Your task to perform on an android device: clear history in the chrome app Image 0: 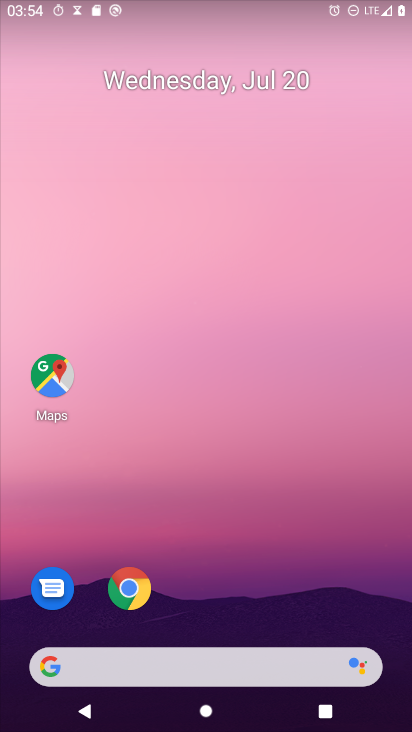
Step 0: click (112, 590)
Your task to perform on an android device: clear history in the chrome app Image 1: 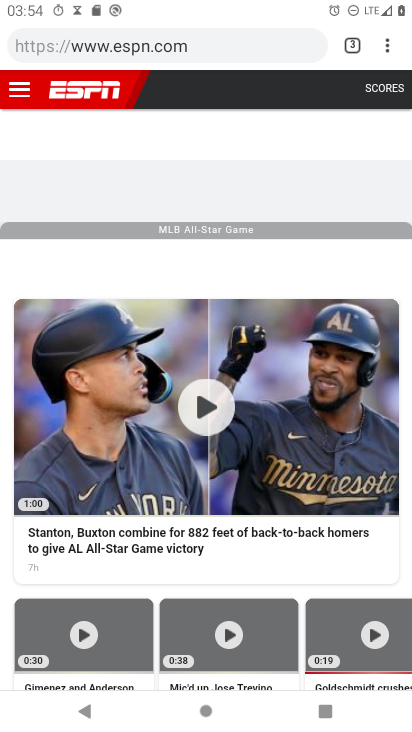
Step 1: click (383, 45)
Your task to perform on an android device: clear history in the chrome app Image 2: 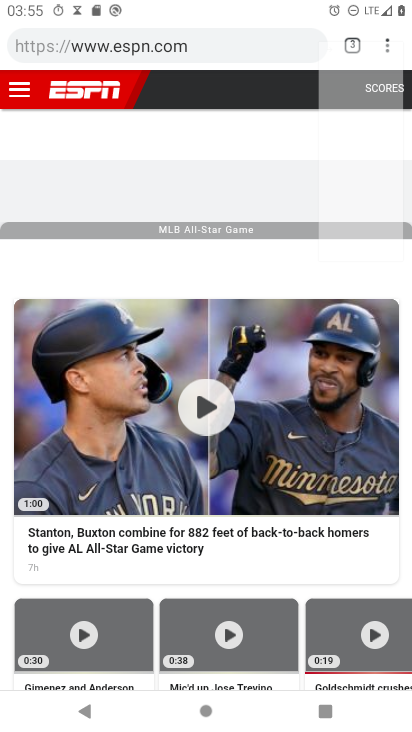
Step 2: click (383, 45)
Your task to perform on an android device: clear history in the chrome app Image 3: 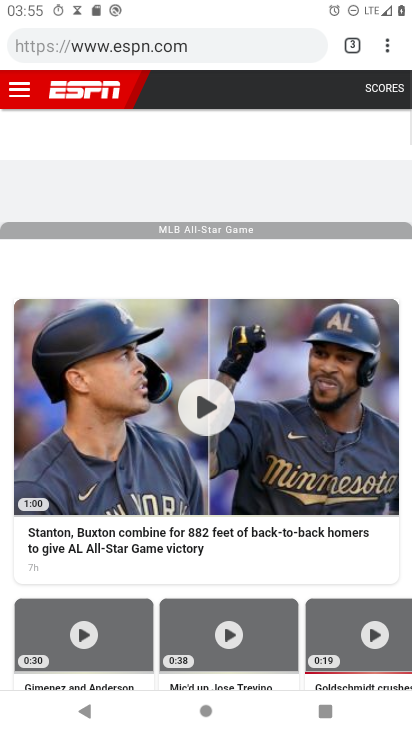
Step 3: click (387, 47)
Your task to perform on an android device: clear history in the chrome app Image 4: 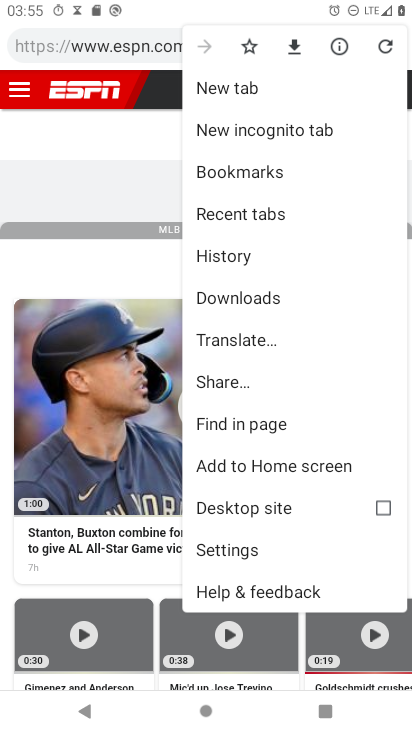
Step 4: click (243, 253)
Your task to perform on an android device: clear history in the chrome app Image 5: 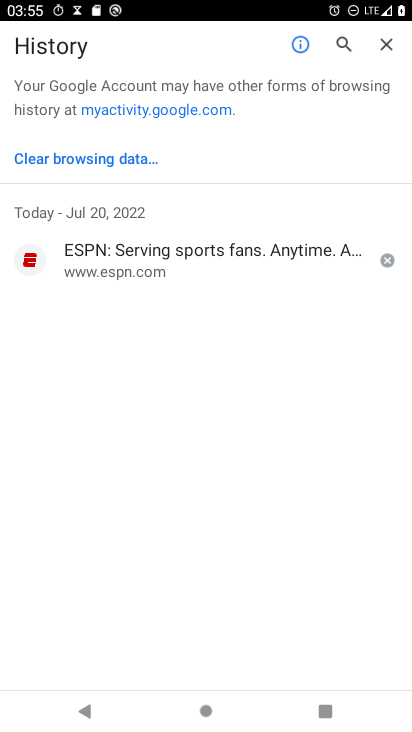
Step 5: click (90, 163)
Your task to perform on an android device: clear history in the chrome app Image 6: 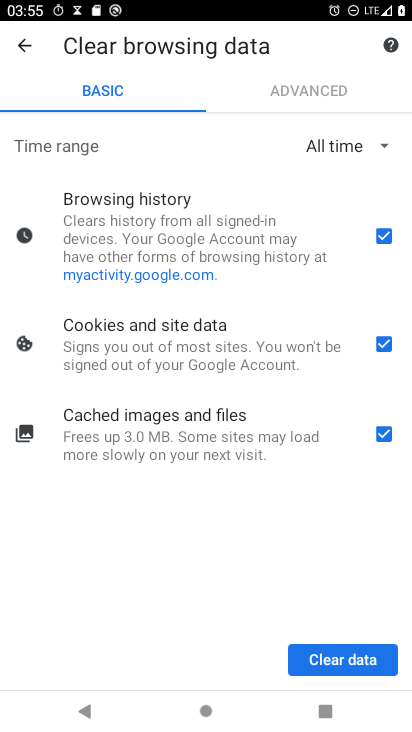
Step 6: click (364, 662)
Your task to perform on an android device: clear history in the chrome app Image 7: 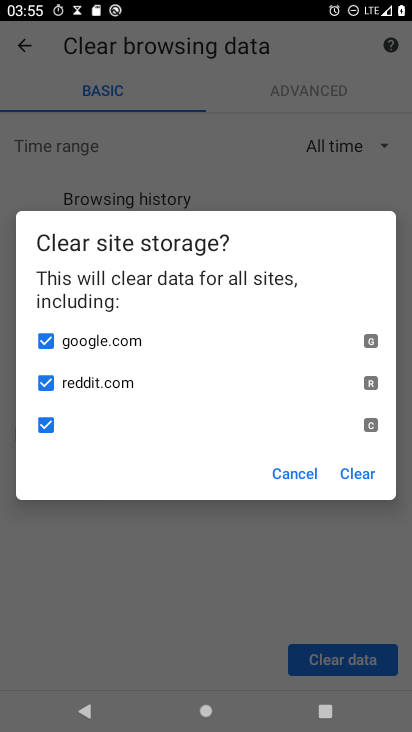
Step 7: click (357, 465)
Your task to perform on an android device: clear history in the chrome app Image 8: 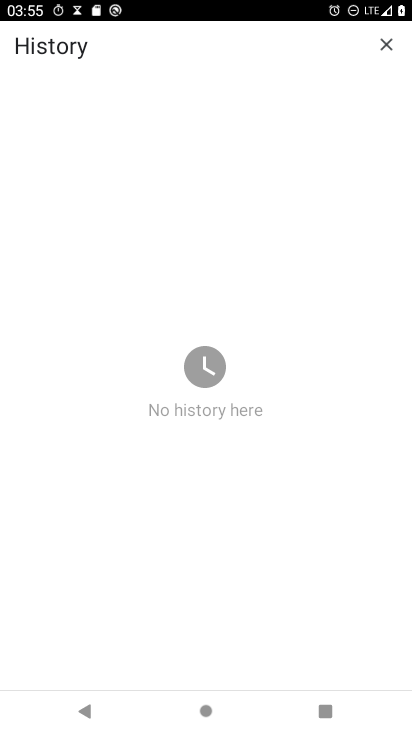
Step 8: task complete